Your task to perform on an android device: Open wifi settings Image 0: 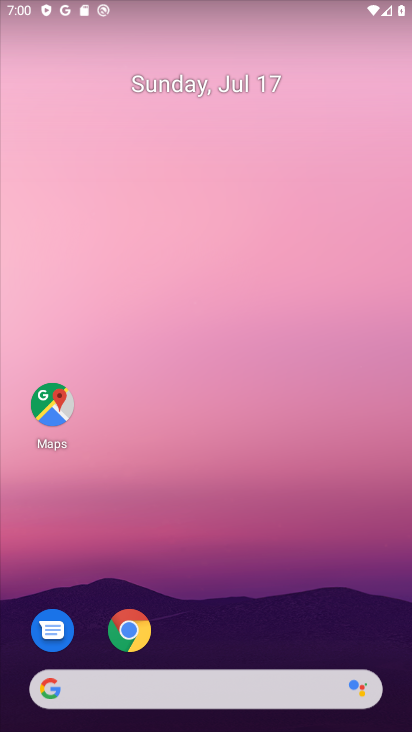
Step 0: drag from (172, 639) to (183, 33)
Your task to perform on an android device: Open wifi settings Image 1: 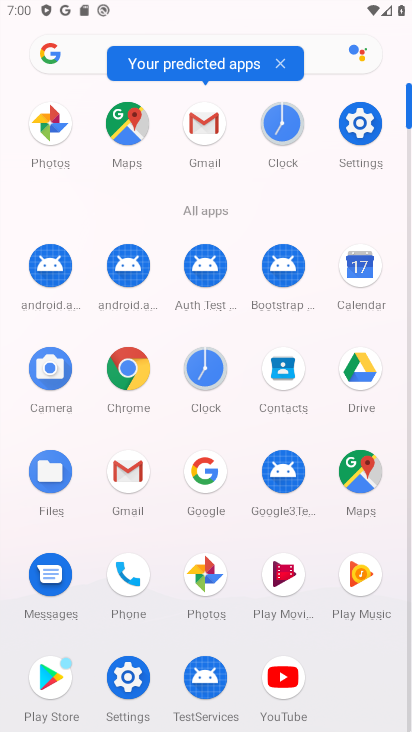
Step 1: click (355, 137)
Your task to perform on an android device: Open wifi settings Image 2: 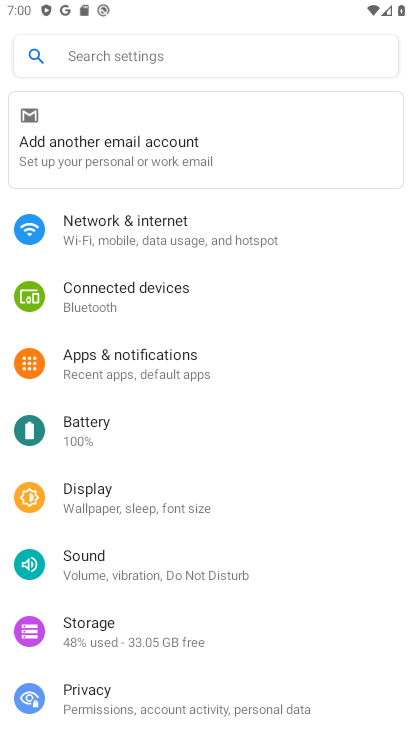
Step 2: click (201, 223)
Your task to perform on an android device: Open wifi settings Image 3: 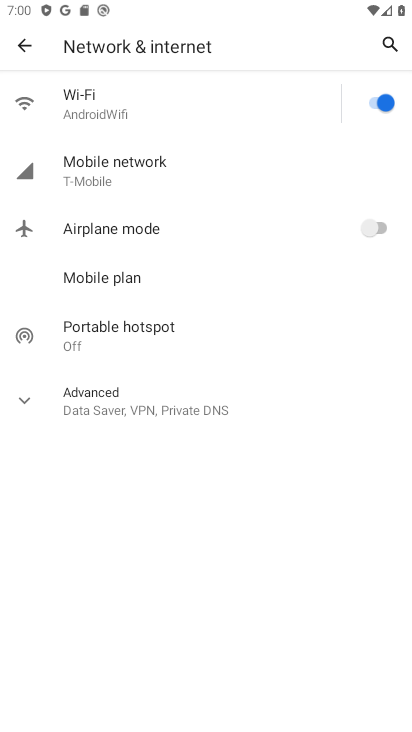
Step 3: click (175, 113)
Your task to perform on an android device: Open wifi settings Image 4: 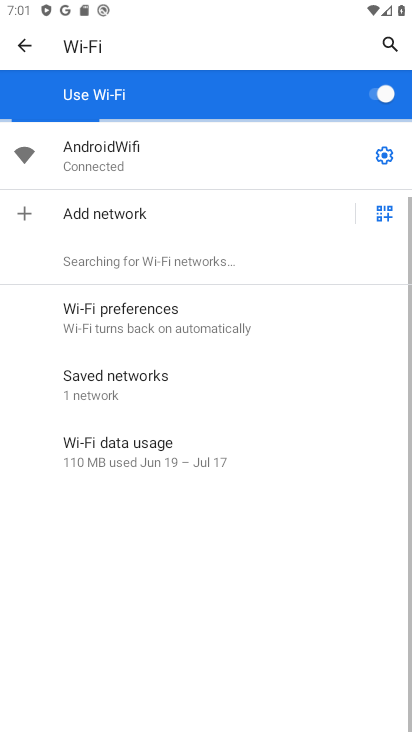
Step 4: task complete